Your task to perform on an android device: clear all cookies in the chrome app Image 0: 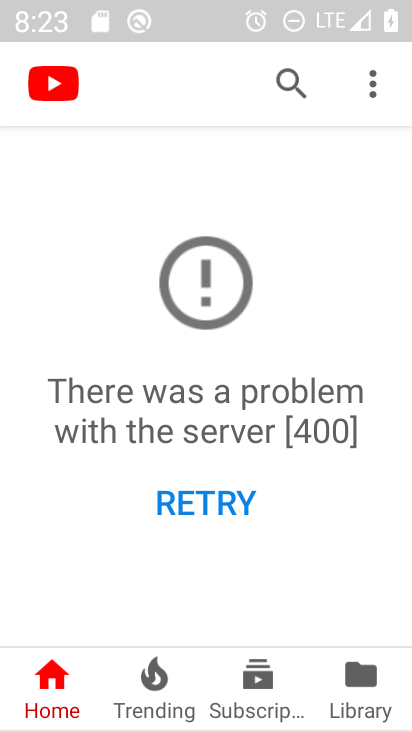
Step 0: press home button
Your task to perform on an android device: clear all cookies in the chrome app Image 1: 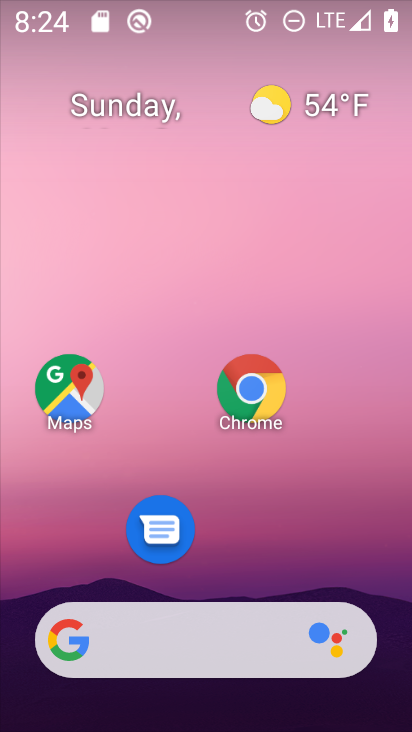
Step 1: click (267, 377)
Your task to perform on an android device: clear all cookies in the chrome app Image 2: 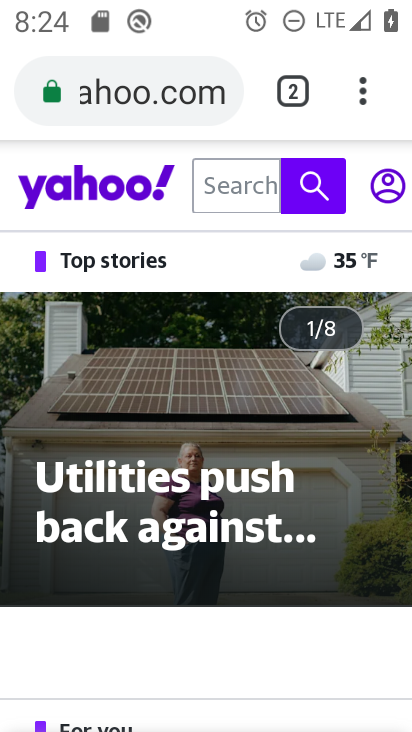
Step 2: click (352, 90)
Your task to perform on an android device: clear all cookies in the chrome app Image 3: 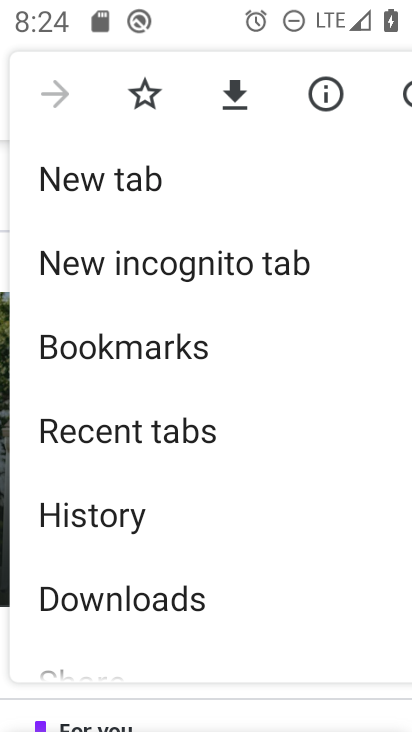
Step 3: drag from (122, 514) to (152, 412)
Your task to perform on an android device: clear all cookies in the chrome app Image 4: 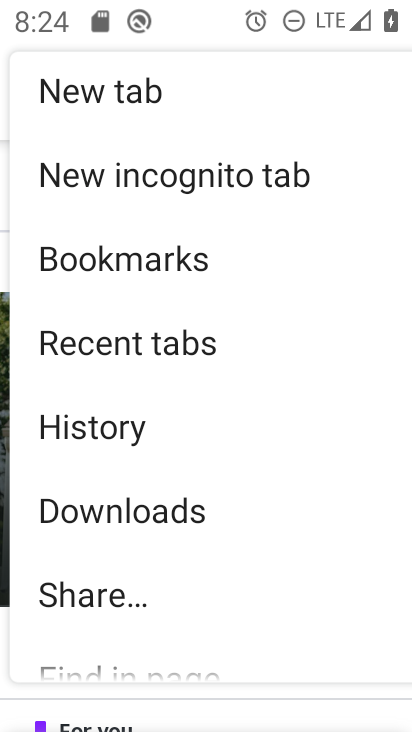
Step 4: click (124, 446)
Your task to perform on an android device: clear all cookies in the chrome app Image 5: 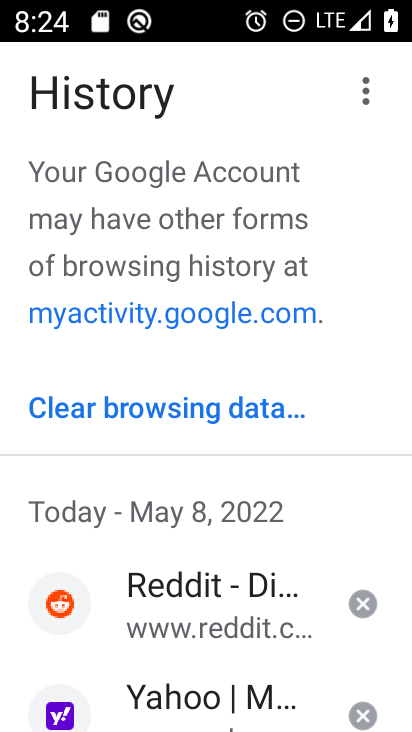
Step 5: click (140, 420)
Your task to perform on an android device: clear all cookies in the chrome app Image 6: 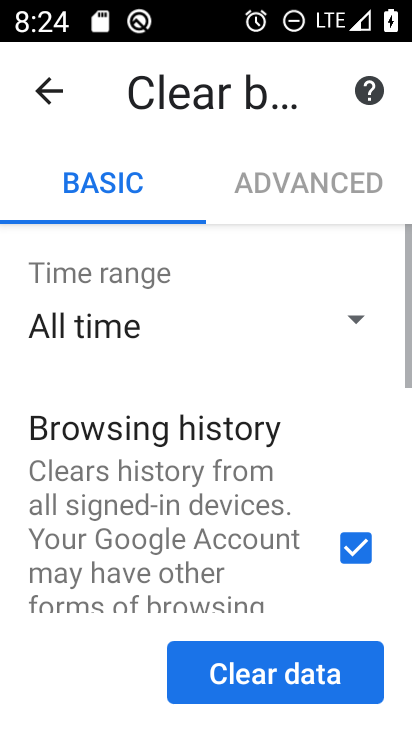
Step 6: drag from (225, 507) to (241, 280)
Your task to perform on an android device: clear all cookies in the chrome app Image 7: 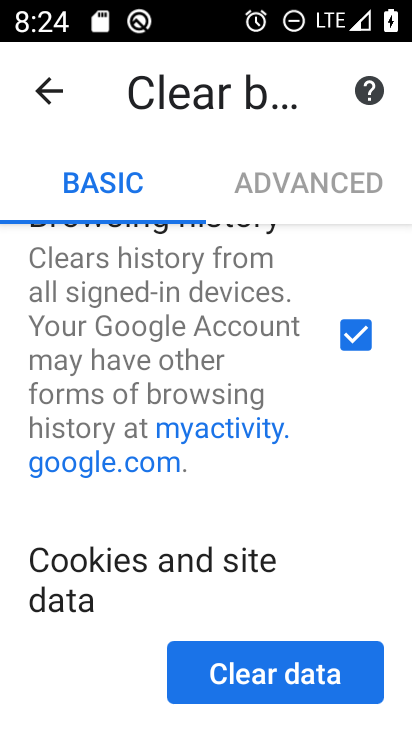
Step 7: drag from (238, 513) to (233, 436)
Your task to perform on an android device: clear all cookies in the chrome app Image 8: 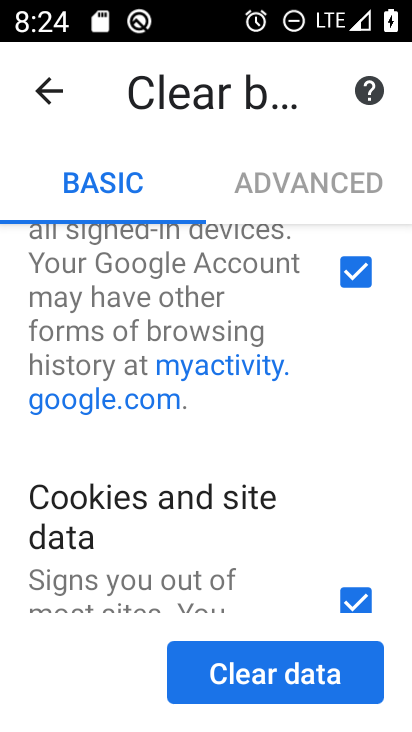
Step 8: click (344, 275)
Your task to perform on an android device: clear all cookies in the chrome app Image 9: 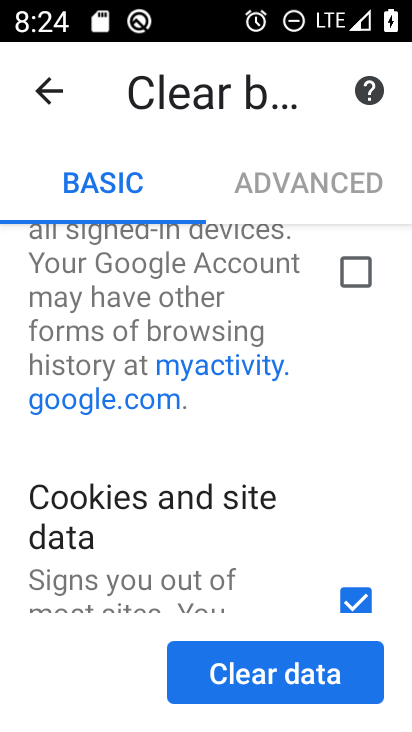
Step 9: drag from (345, 586) to (382, 144)
Your task to perform on an android device: clear all cookies in the chrome app Image 10: 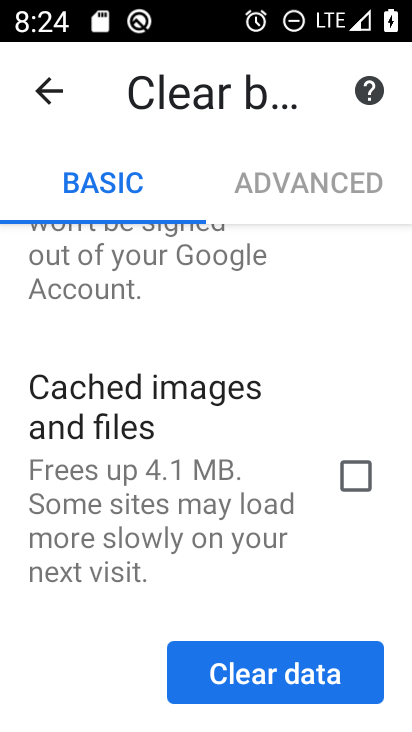
Step 10: click (300, 679)
Your task to perform on an android device: clear all cookies in the chrome app Image 11: 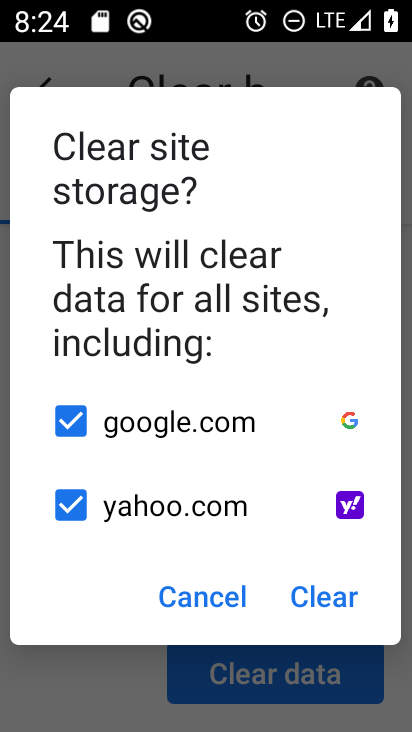
Step 11: click (329, 578)
Your task to perform on an android device: clear all cookies in the chrome app Image 12: 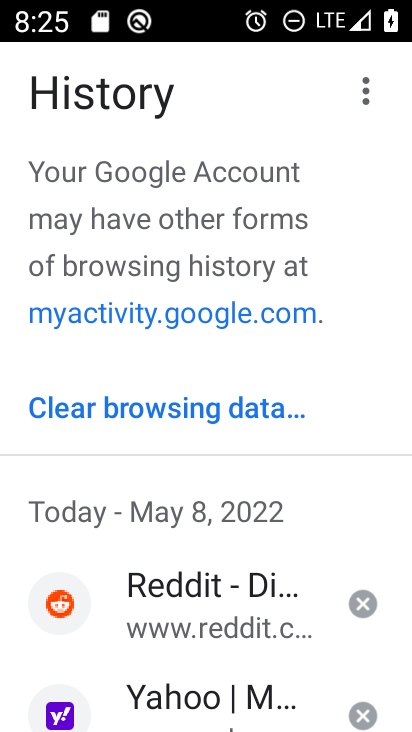
Step 12: task complete